Your task to perform on an android device: turn on translation in the chrome app Image 0: 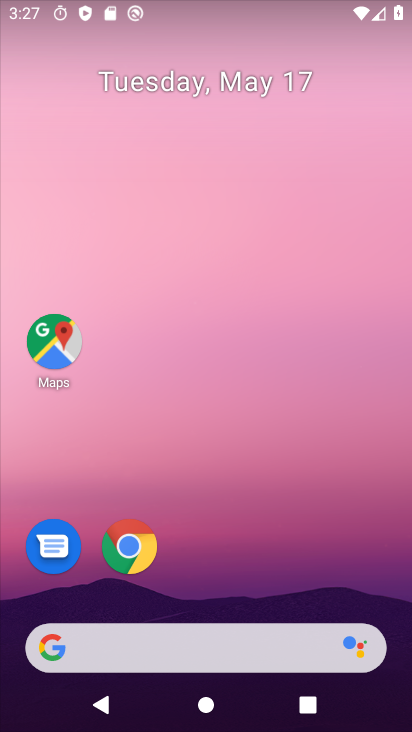
Step 0: drag from (263, 649) to (263, 117)
Your task to perform on an android device: turn on translation in the chrome app Image 1: 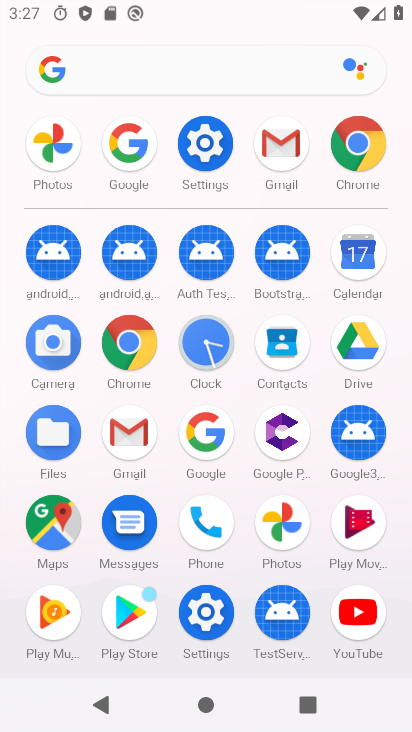
Step 1: click (130, 379)
Your task to perform on an android device: turn on translation in the chrome app Image 2: 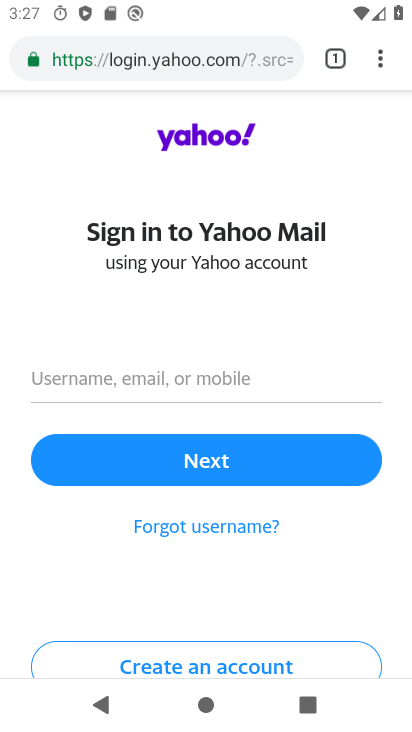
Step 2: click (384, 60)
Your task to perform on an android device: turn on translation in the chrome app Image 3: 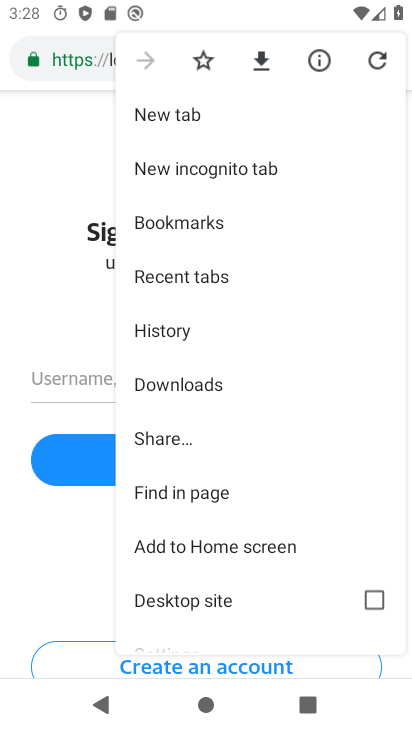
Step 3: task complete